Your task to perform on an android device: install app "Pluto TV - Live TV and Movies" Image 0: 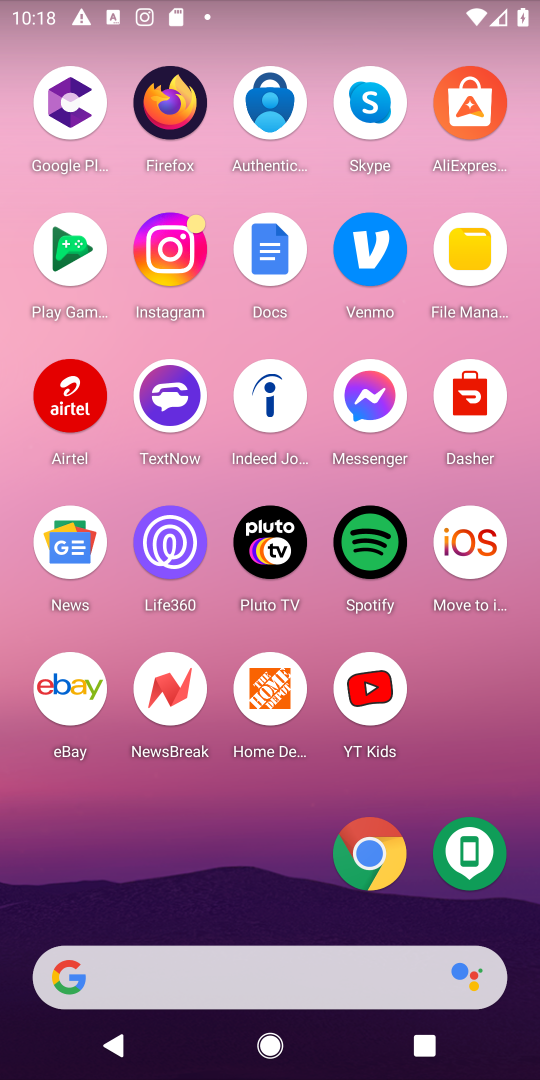
Step 0: click (187, 835)
Your task to perform on an android device: install app "Pluto TV - Live TV and Movies" Image 1: 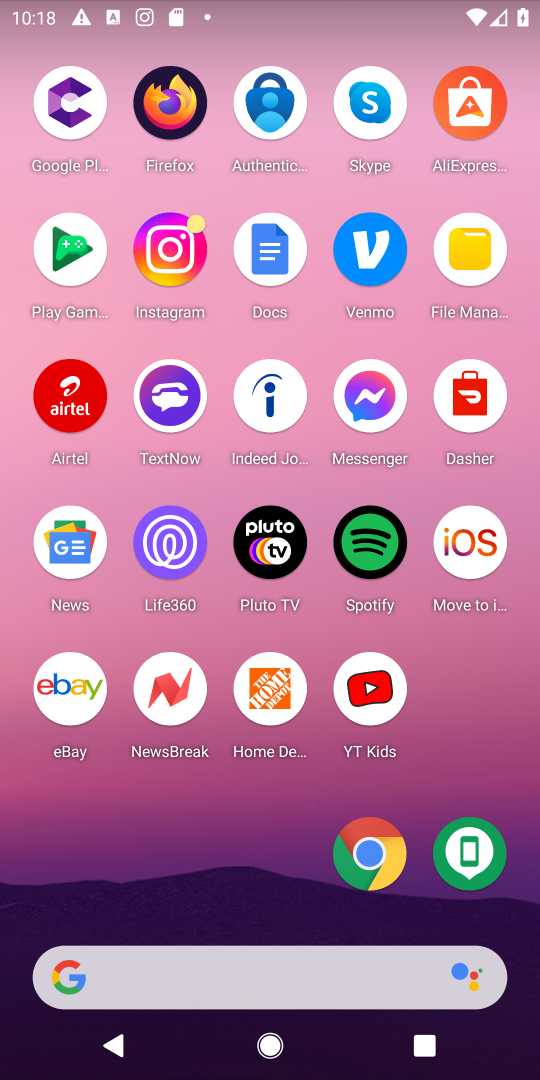
Step 1: drag from (201, 892) to (342, 75)
Your task to perform on an android device: install app "Pluto TV - Live TV and Movies" Image 2: 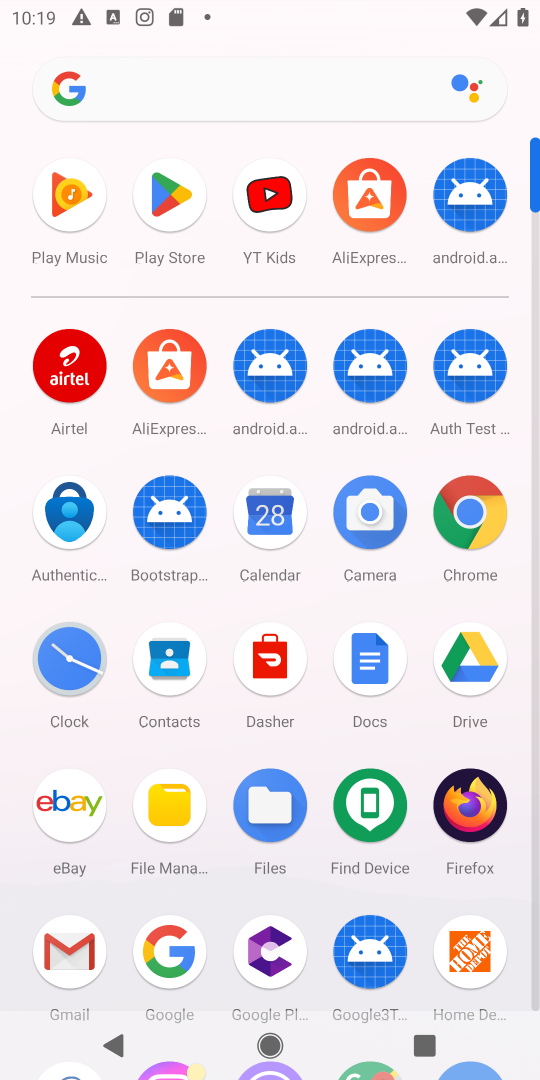
Step 2: click (164, 205)
Your task to perform on an android device: install app "Pluto TV - Live TV and Movies" Image 3: 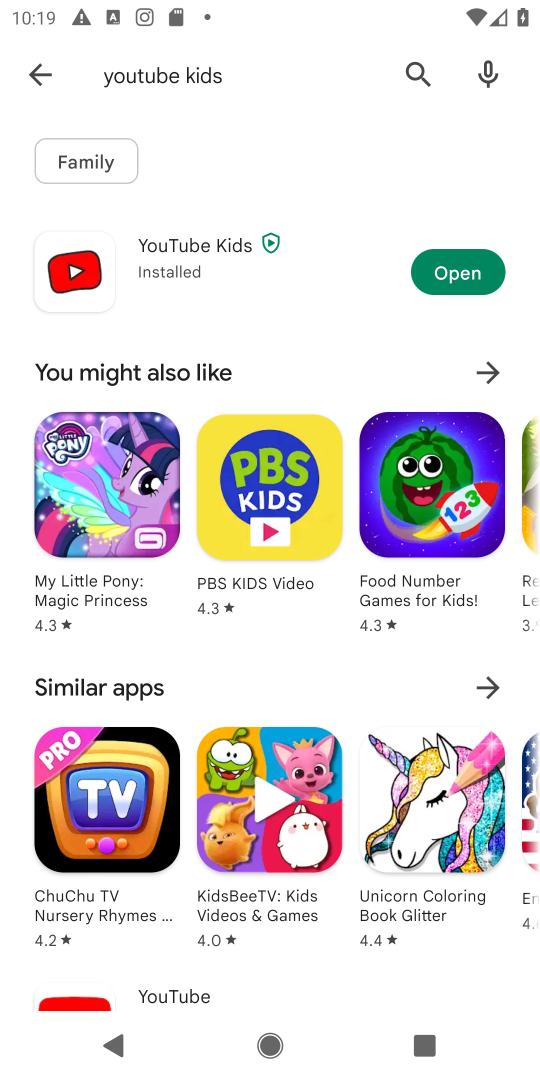
Step 3: click (31, 65)
Your task to perform on an android device: install app "Pluto TV - Live TV and Movies" Image 4: 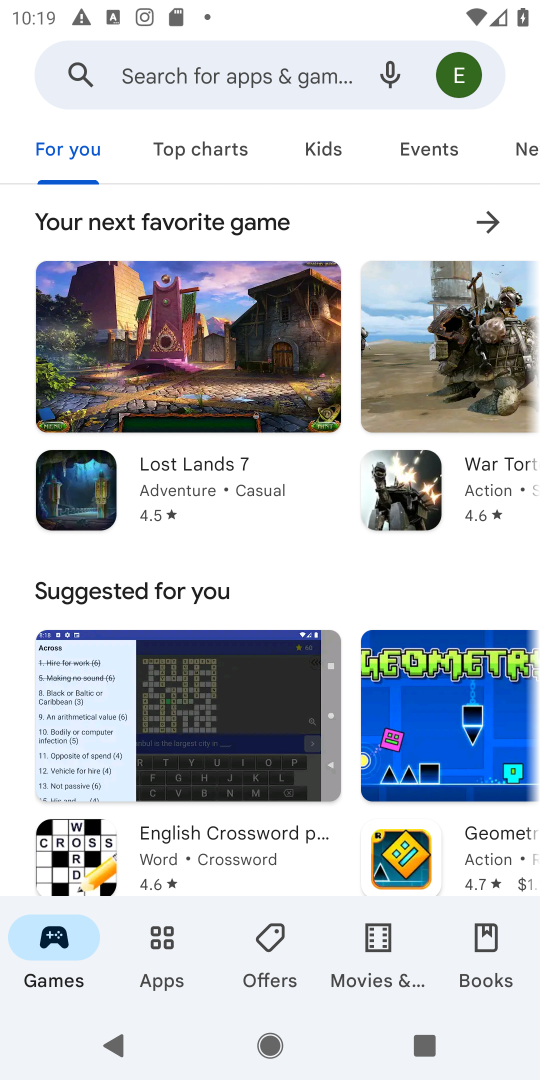
Step 4: click (194, 61)
Your task to perform on an android device: install app "Pluto TV - Live TV and Movies" Image 5: 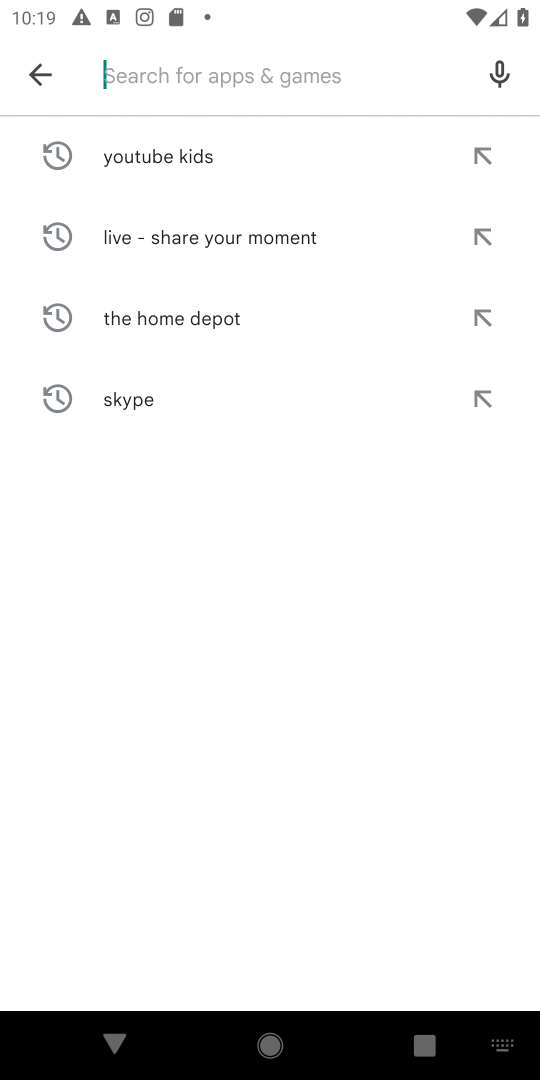
Step 5: type "pluto tv"
Your task to perform on an android device: install app "Pluto TV - Live TV and Movies" Image 6: 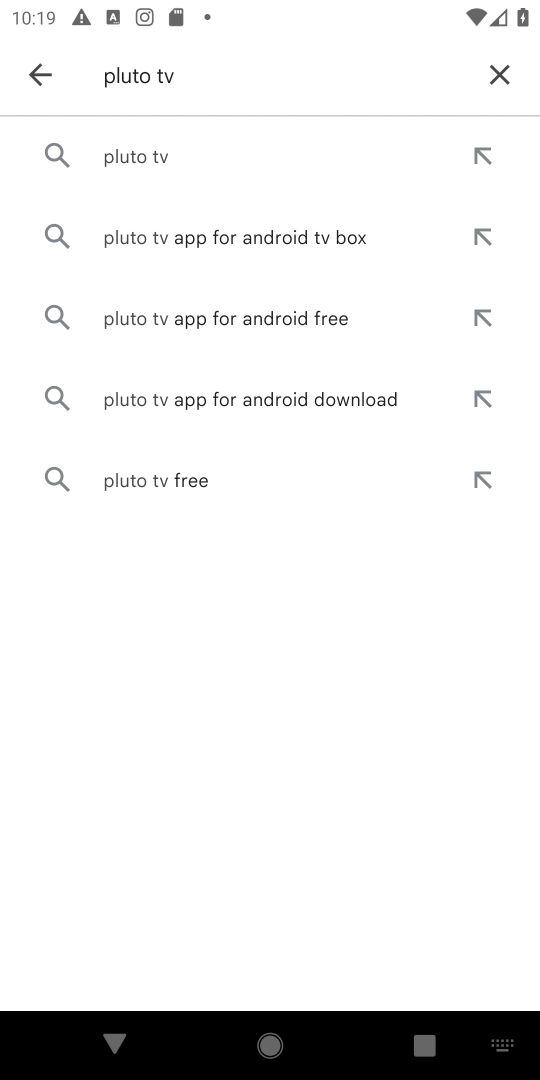
Step 6: click (155, 155)
Your task to perform on an android device: install app "Pluto TV - Live TV and Movies" Image 7: 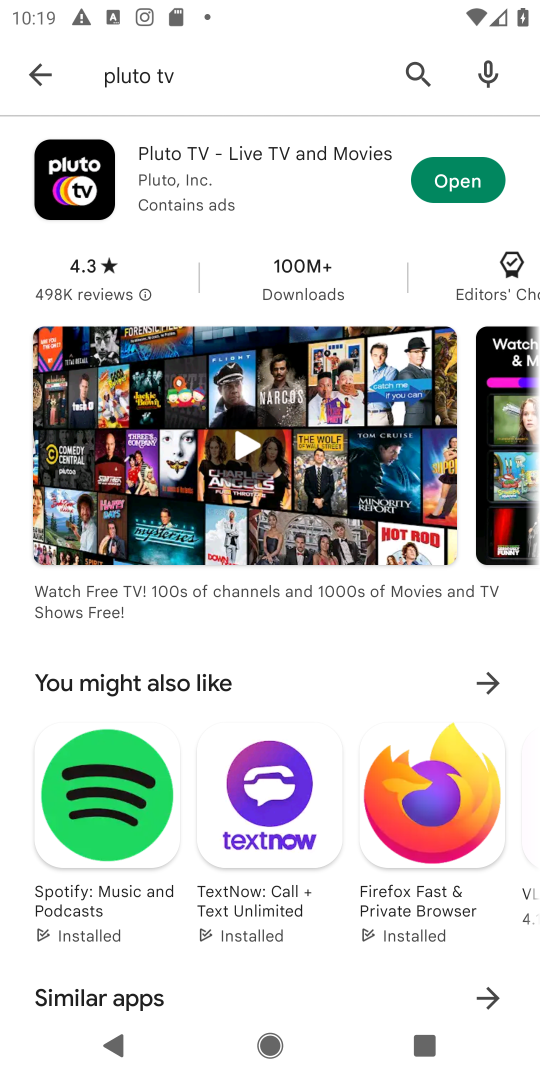
Step 7: click (483, 167)
Your task to perform on an android device: install app "Pluto TV - Live TV and Movies" Image 8: 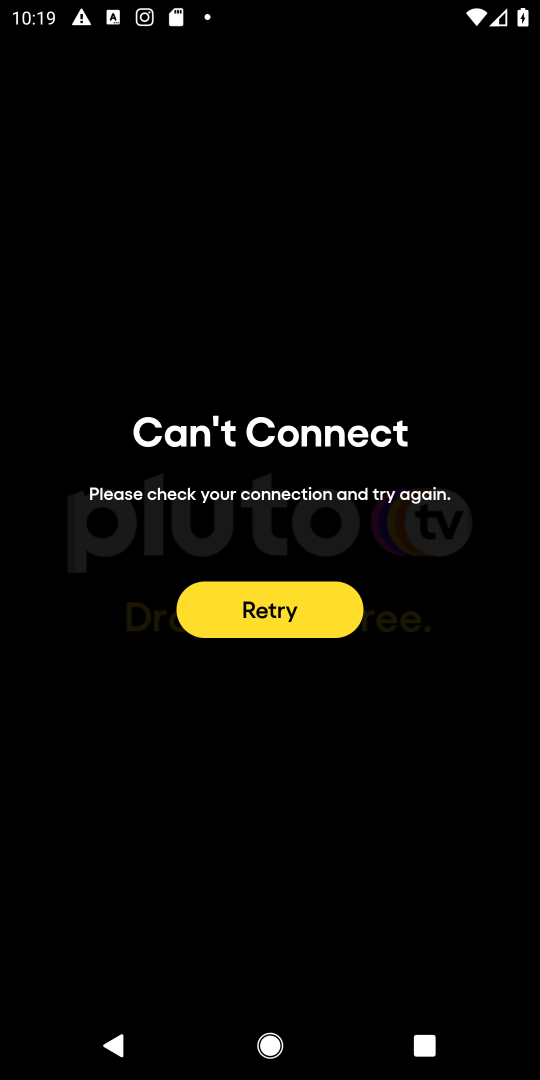
Step 8: task complete